Your task to perform on an android device: turn on airplane mode Image 0: 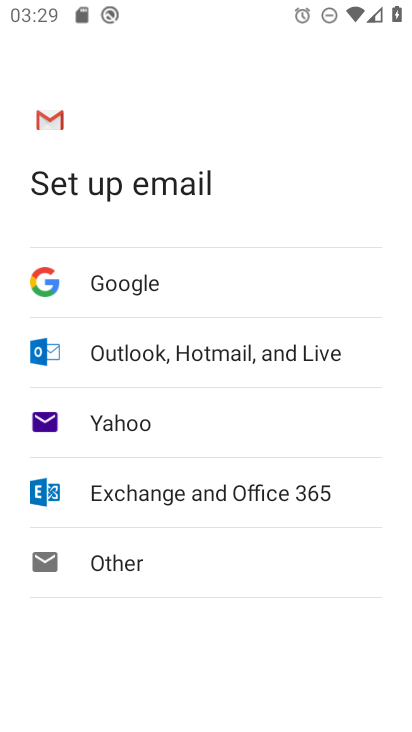
Step 0: press home button
Your task to perform on an android device: turn on airplane mode Image 1: 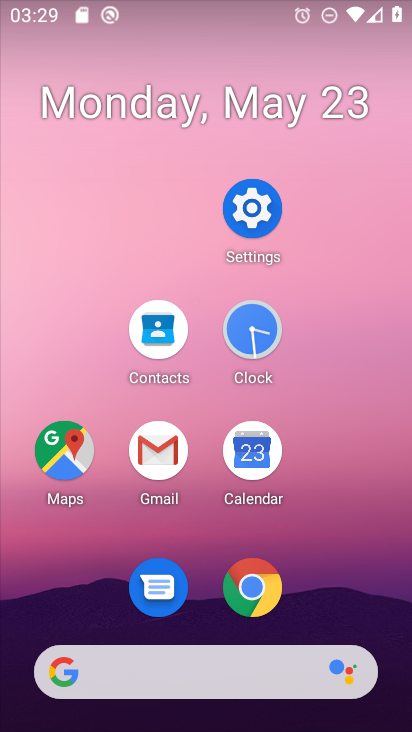
Step 1: click (269, 226)
Your task to perform on an android device: turn on airplane mode Image 2: 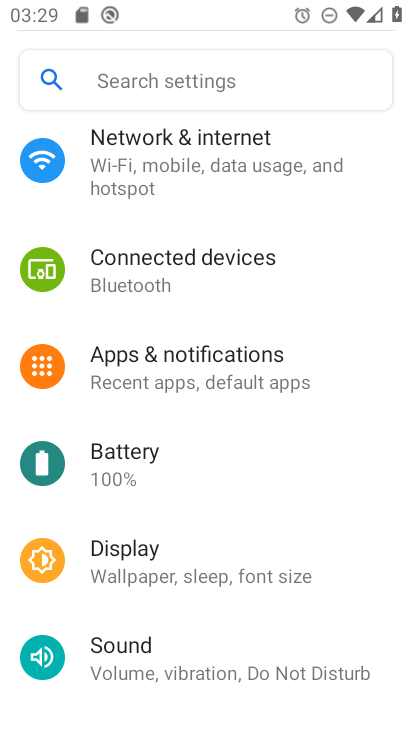
Step 2: click (172, 203)
Your task to perform on an android device: turn on airplane mode Image 3: 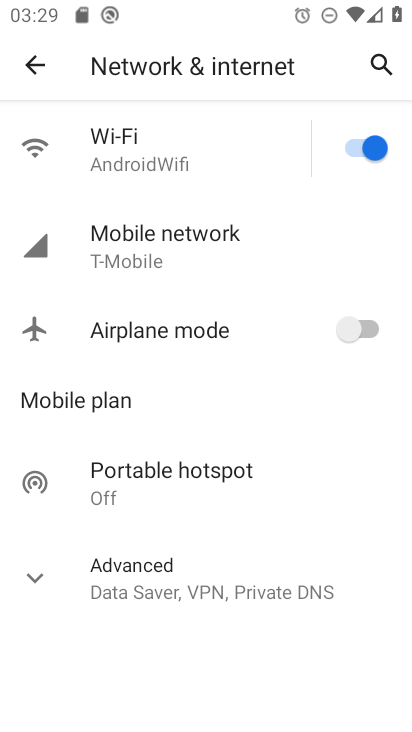
Step 3: click (372, 314)
Your task to perform on an android device: turn on airplane mode Image 4: 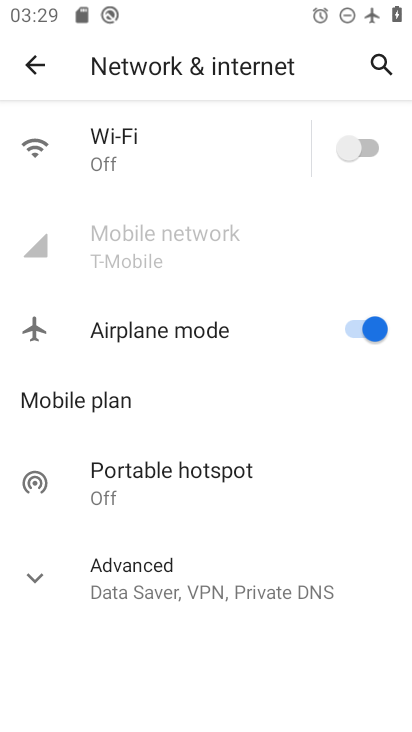
Step 4: task complete